Your task to perform on an android device: turn on javascript in the chrome app Image 0: 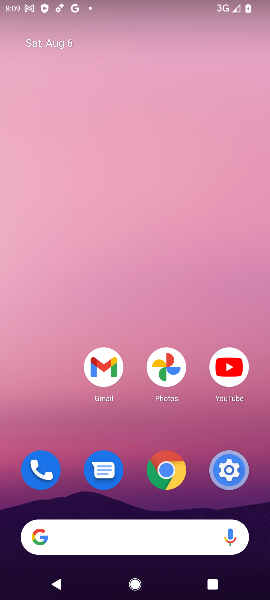
Step 0: click (170, 464)
Your task to perform on an android device: turn on javascript in the chrome app Image 1: 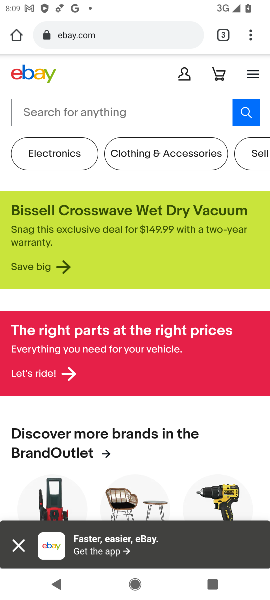
Step 1: click (254, 36)
Your task to perform on an android device: turn on javascript in the chrome app Image 2: 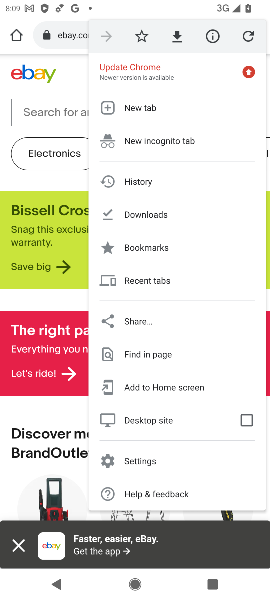
Step 2: click (116, 462)
Your task to perform on an android device: turn on javascript in the chrome app Image 3: 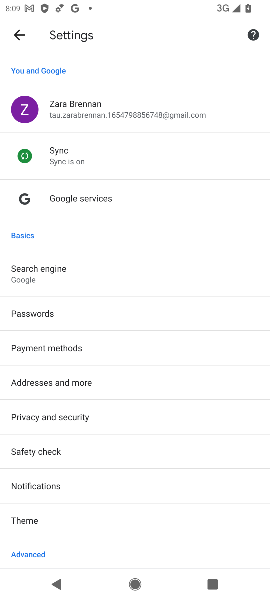
Step 3: drag from (76, 478) to (88, 299)
Your task to perform on an android device: turn on javascript in the chrome app Image 4: 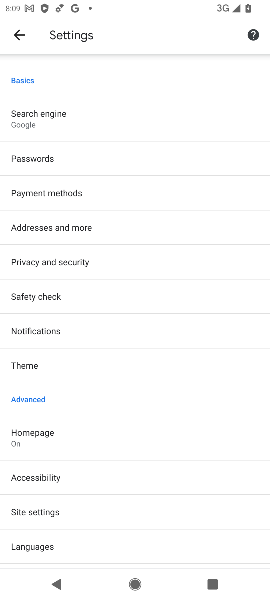
Step 4: click (44, 516)
Your task to perform on an android device: turn on javascript in the chrome app Image 5: 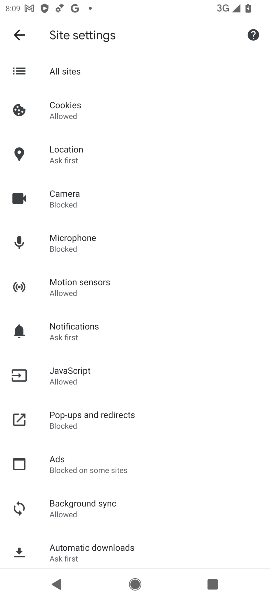
Step 5: click (77, 380)
Your task to perform on an android device: turn on javascript in the chrome app Image 6: 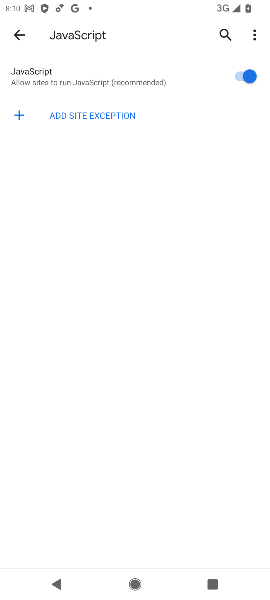
Step 6: task complete